Your task to perform on an android device: set the timer Image 0: 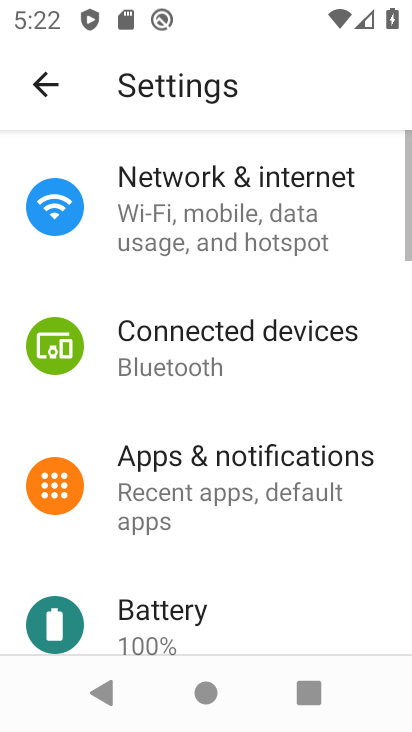
Step 0: press home button
Your task to perform on an android device: set the timer Image 1: 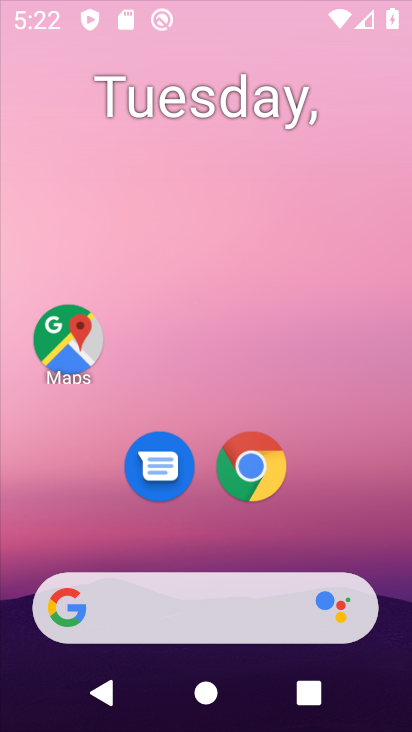
Step 1: drag from (306, 568) to (293, 16)
Your task to perform on an android device: set the timer Image 2: 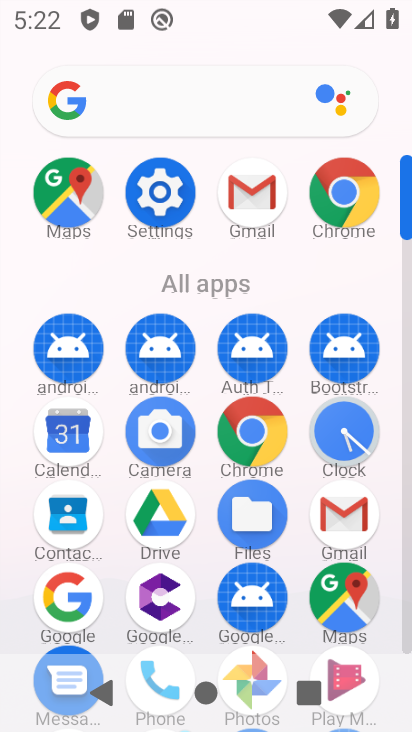
Step 2: click (353, 432)
Your task to perform on an android device: set the timer Image 3: 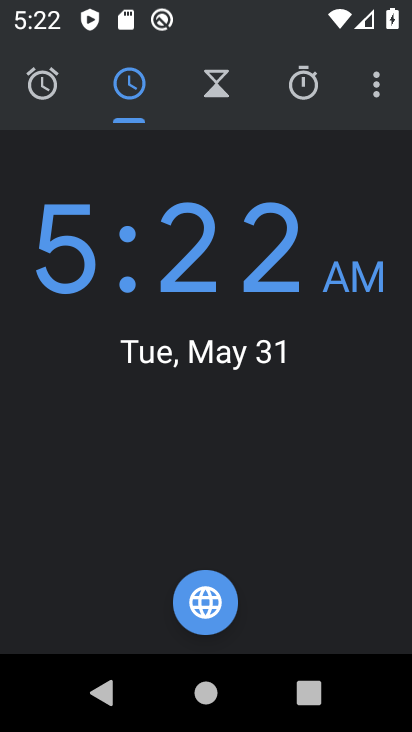
Step 3: click (208, 98)
Your task to perform on an android device: set the timer Image 4: 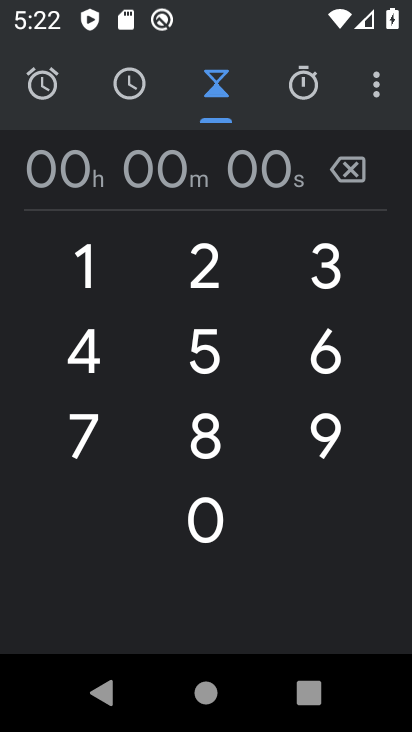
Step 4: click (252, 520)
Your task to perform on an android device: set the timer Image 5: 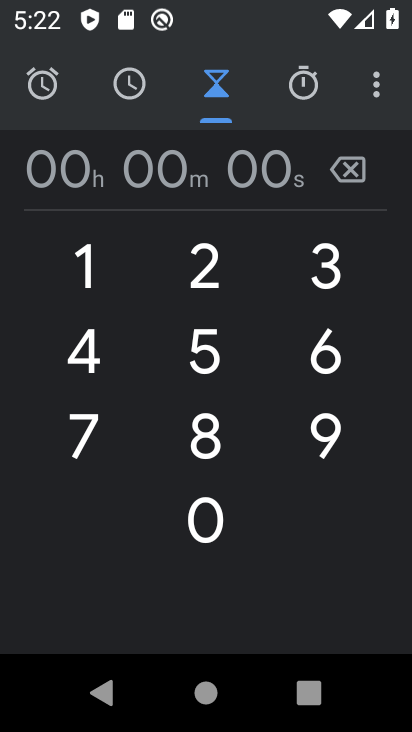
Step 5: click (227, 440)
Your task to perform on an android device: set the timer Image 6: 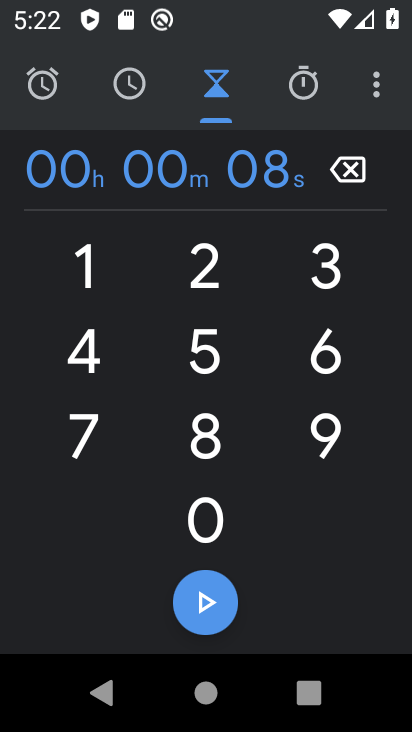
Step 6: click (212, 590)
Your task to perform on an android device: set the timer Image 7: 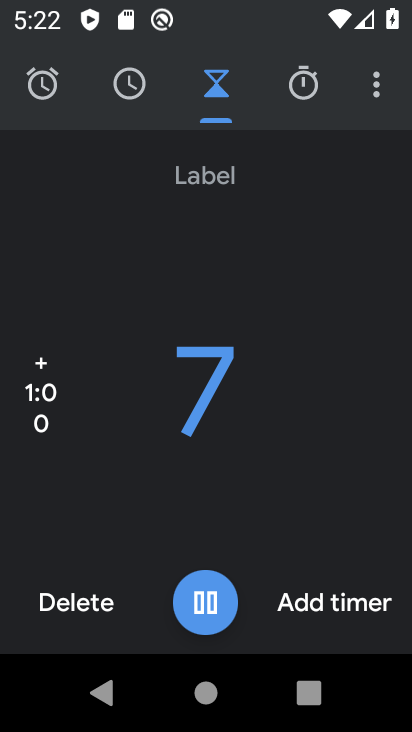
Step 7: task complete